Your task to perform on an android device: all mails in gmail Image 0: 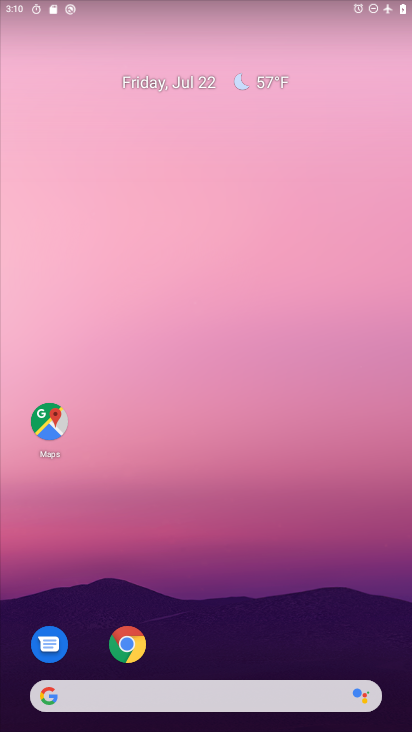
Step 0: drag from (188, 653) to (202, 303)
Your task to perform on an android device: all mails in gmail Image 1: 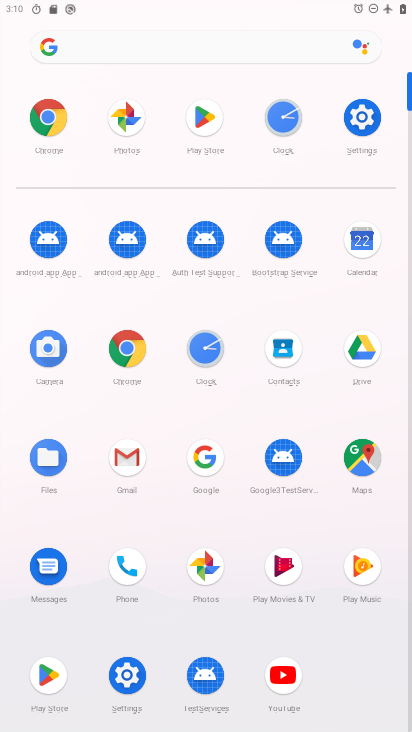
Step 1: click (119, 462)
Your task to perform on an android device: all mails in gmail Image 2: 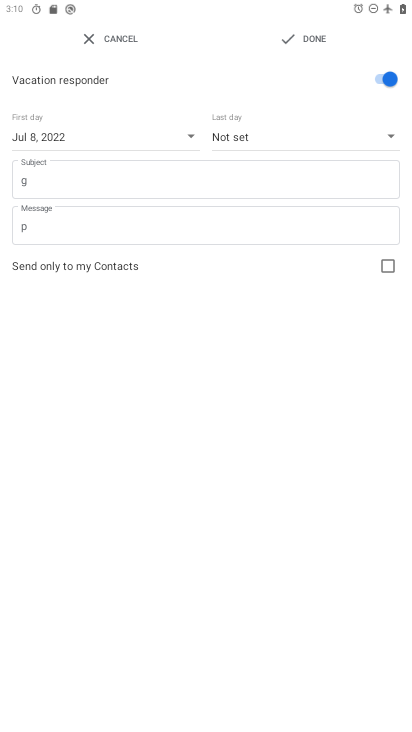
Step 2: click (74, 35)
Your task to perform on an android device: all mails in gmail Image 3: 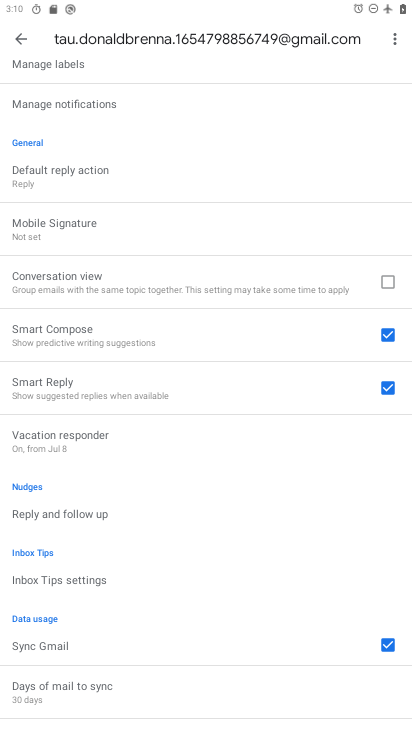
Step 3: click (25, 39)
Your task to perform on an android device: all mails in gmail Image 4: 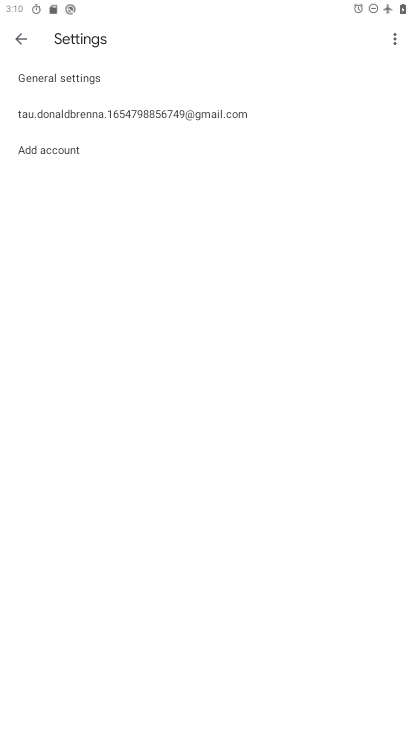
Step 4: click (25, 39)
Your task to perform on an android device: all mails in gmail Image 5: 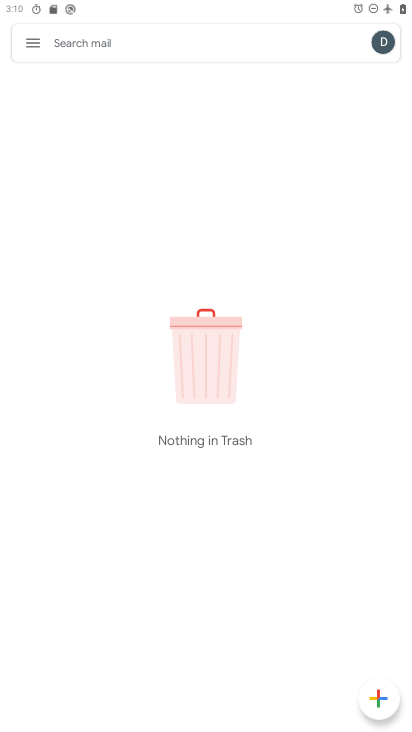
Step 5: click (25, 39)
Your task to perform on an android device: all mails in gmail Image 6: 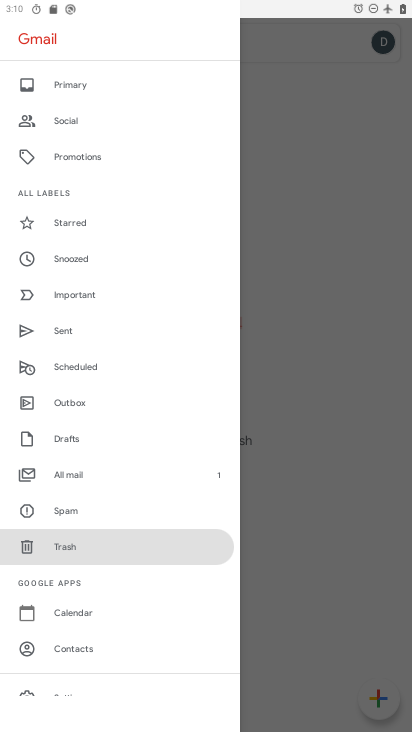
Step 6: click (98, 478)
Your task to perform on an android device: all mails in gmail Image 7: 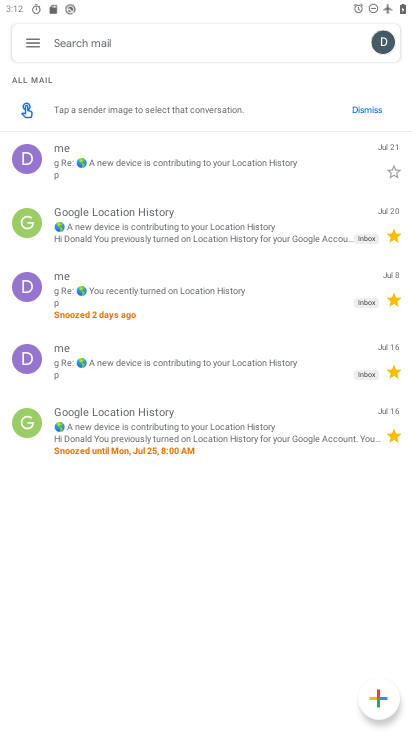
Step 7: click (32, 56)
Your task to perform on an android device: all mails in gmail Image 8: 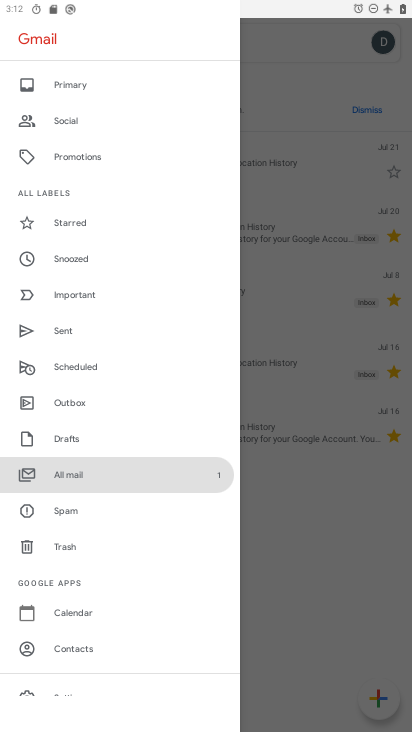
Step 8: task complete